Your task to perform on an android device: Open Google Chrome and click the shortcut for Amazon.com Image 0: 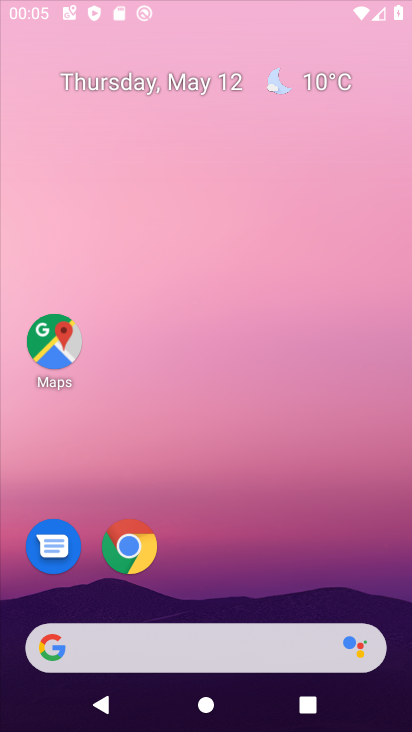
Step 0: drag from (232, 135) to (221, 55)
Your task to perform on an android device: Open Google Chrome and click the shortcut for Amazon.com Image 1: 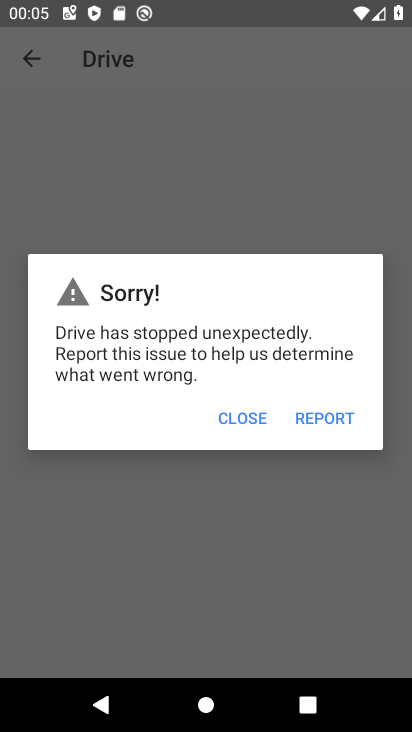
Step 1: press home button
Your task to perform on an android device: Open Google Chrome and click the shortcut for Amazon.com Image 2: 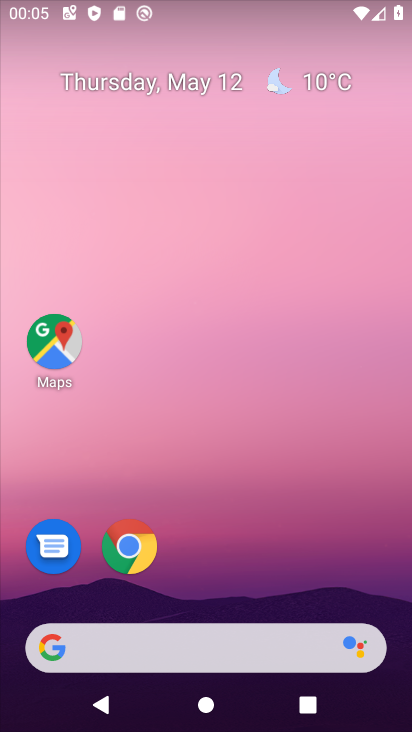
Step 2: click (128, 545)
Your task to perform on an android device: Open Google Chrome and click the shortcut for Amazon.com Image 3: 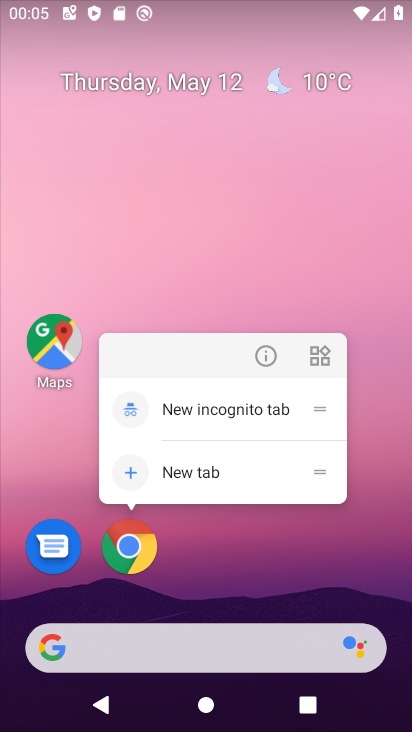
Step 3: click (128, 545)
Your task to perform on an android device: Open Google Chrome and click the shortcut for Amazon.com Image 4: 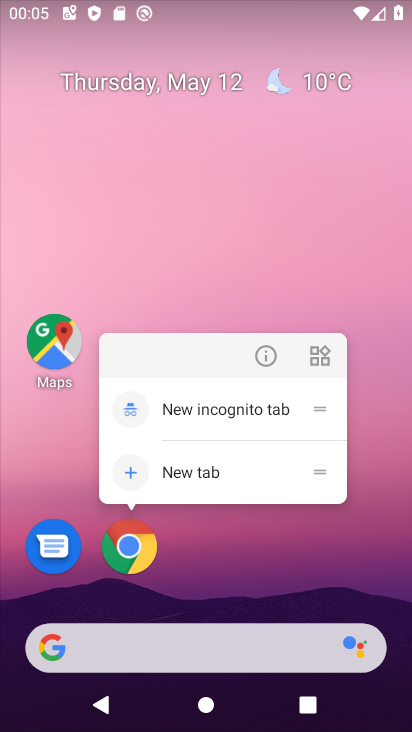
Step 4: click (125, 551)
Your task to perform on an android device: Open Google Chrome and click the shortcut for Amazon.com Image 5: 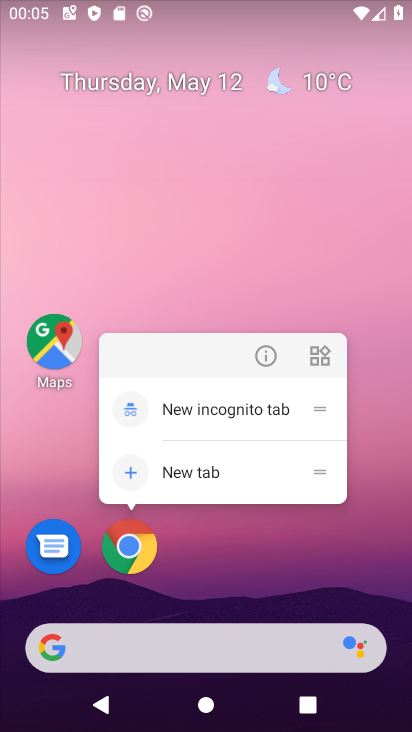
Step 5: click (255, 356)
Your task to perform on an android device: Open Google Chrome and click the shortcut for Amazon.com Image 6: 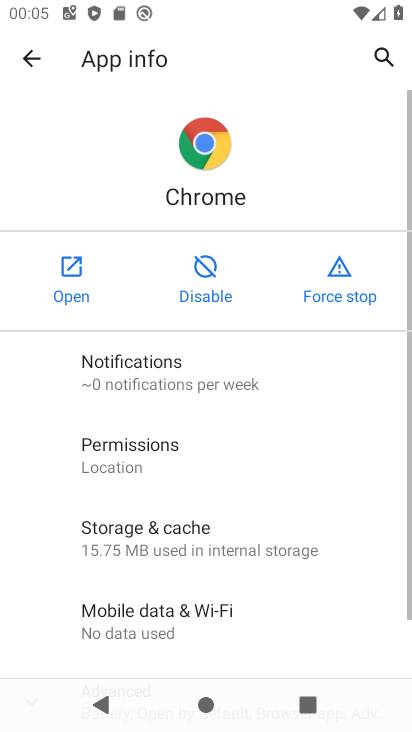
Step 6: click (88, 277)
Your task to perform on an android device: Open Google Chrome and click the shortcut for Amazon.com Image 7: 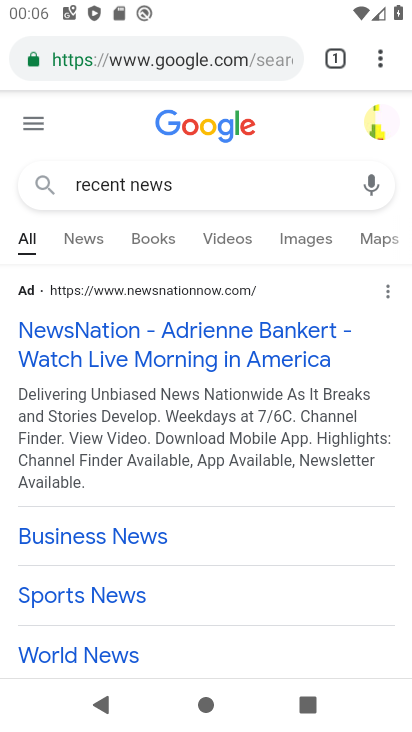
Step 7: click (188, 72)
Your task to perform on an android device: Open Google Chrome and click the shortcut for Amazon.com Image 8: 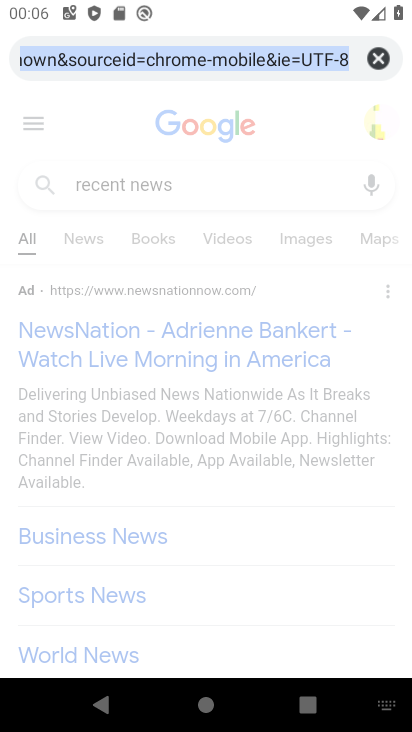
Step 8: type "Amazon.com"
Your task to perform on an android device: Open Google Chrome and click the shortcut for Amazon.com Image 9: 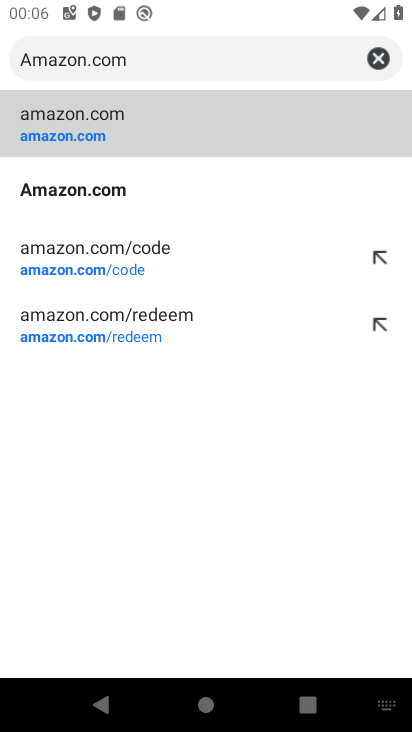
Step 9: click (104, 125)
Your task to perform on an android device: Open Google Chrome and click the shortcut for Amazon.com Image 10: 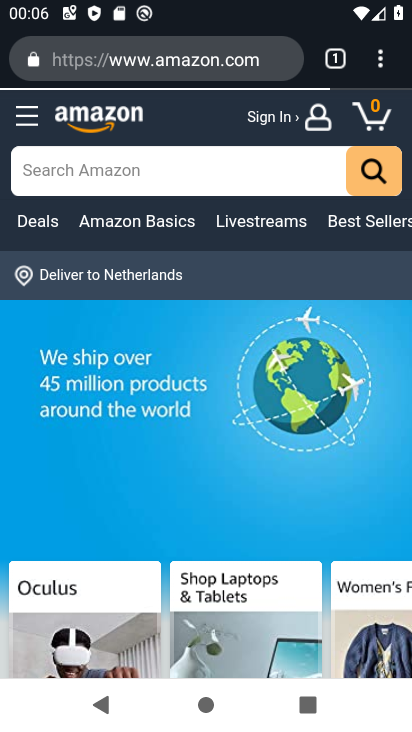
Step 10: click (378, 61)
Your task to perform on an android device: Open Google Chrome and click the shortcut for Amazon.com Image 11: 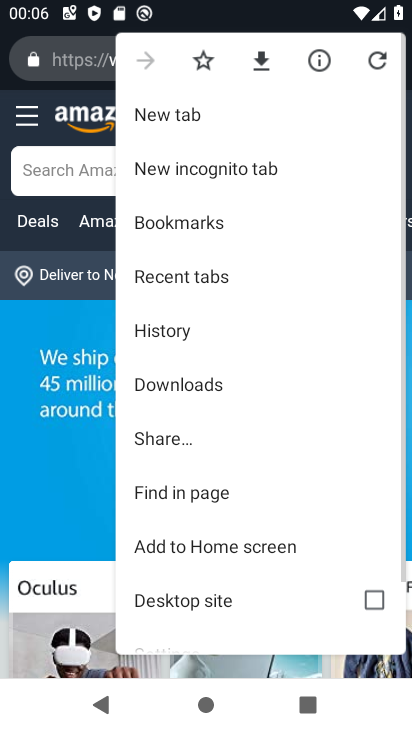
Step 11: click (208, 69)
Your task to perform on an android device: Open Google Chrome and click the shortcut for Amazon.com Image 12: 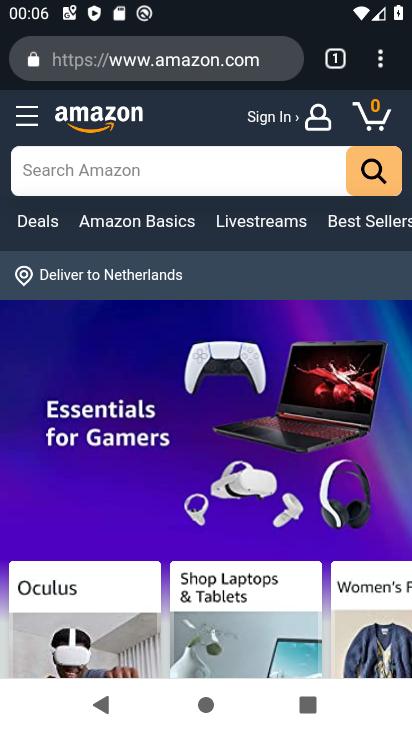
Step 12: task complete